Your task to perform on an android device: Search for sushi restaurants on Maps Image 0: 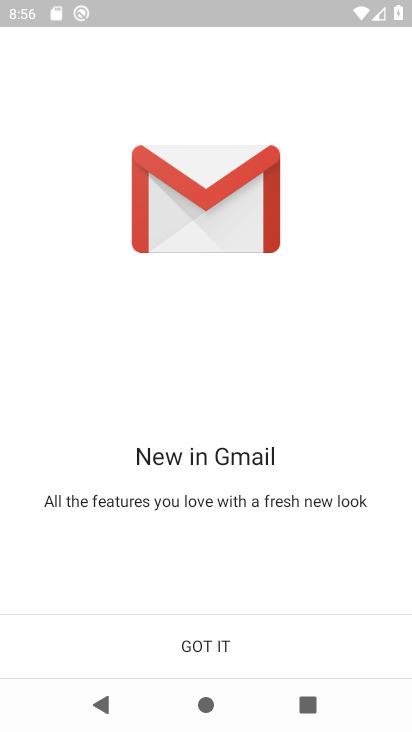
Step 0: press home button
Your task to perform on an android device: Search for sushi restaurants on Maps Image 1: 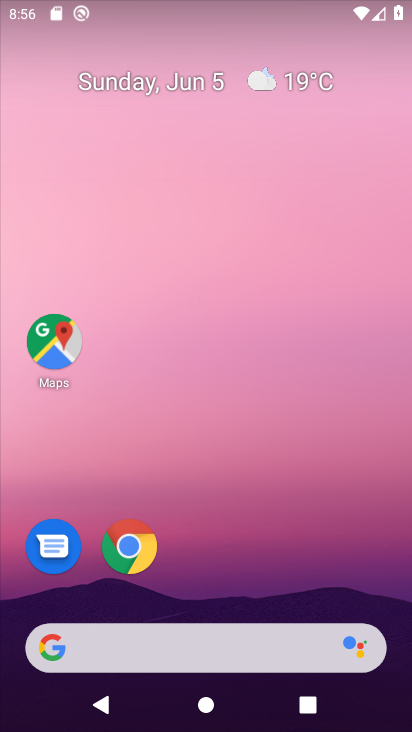
Step 1: drag from (241, 534) to (341, 57)
Your task to perform on an android device: Search for sushi restaurants on Maps Image 2: 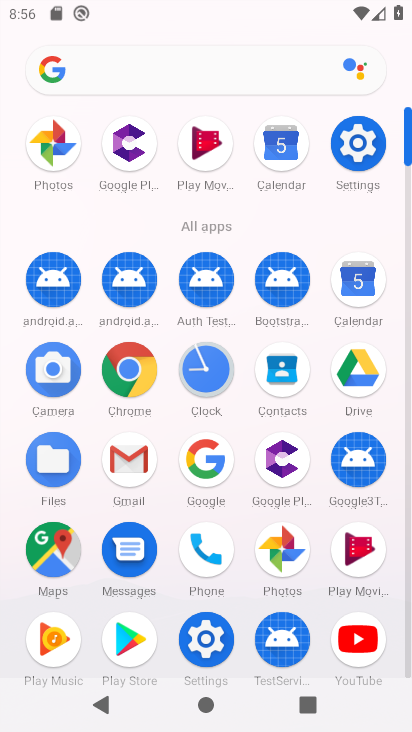
Step 2: drag from (232, 725) to (365, 534)
Your task to perform on an android device: Search for sushi restaurants on Maps Image 3: 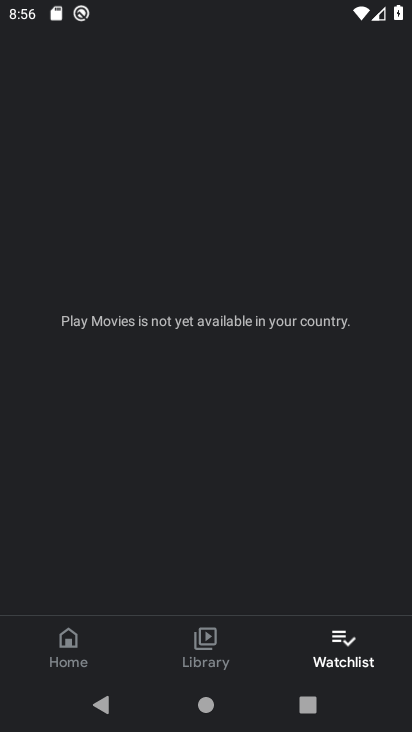
Step 3: press home button
Your task to perform on an android device: Search for sushi restaurants on Maps Image 4: 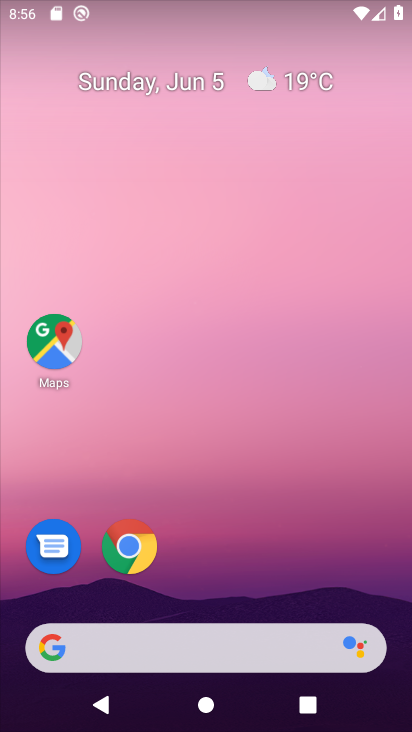
Step 4: drag from (250, 603) to (296, 110)
Your task to perform on an android device: Search for sushi restaurants on Maps Image 5: 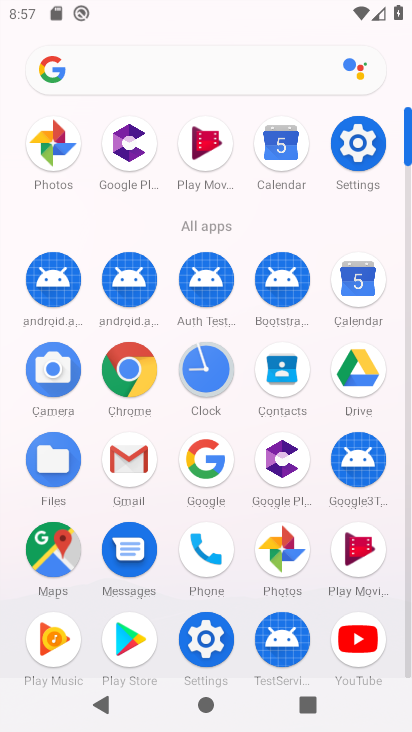
Step 5: click (54, 574)
Your task to perform on an android device: Search for sushi restaurants on Maps Image 6: 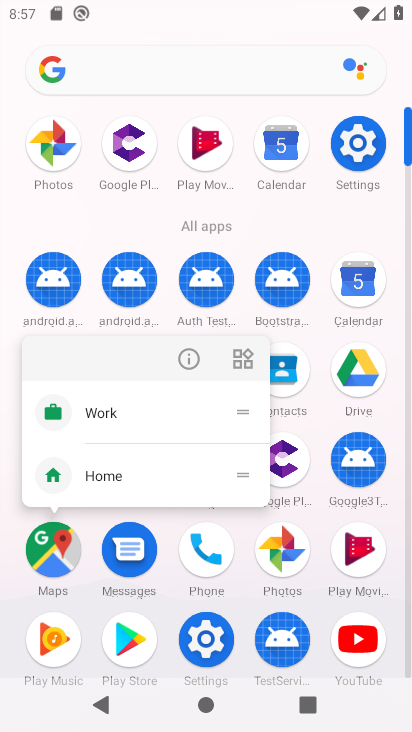
Step 6: click (54, 574)
Your task to perform on an android device: Search for sushi restaurants on Maps Image 7: 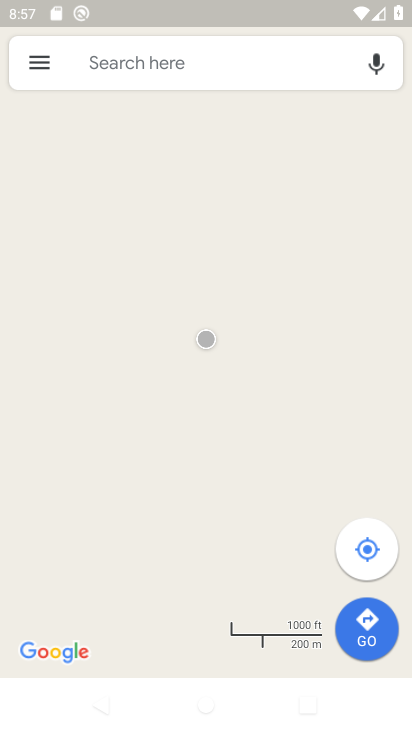
Step 7: click (172, 58)
Your task to perform on an android device: Search for sushi restaurants on Maps Image 8: 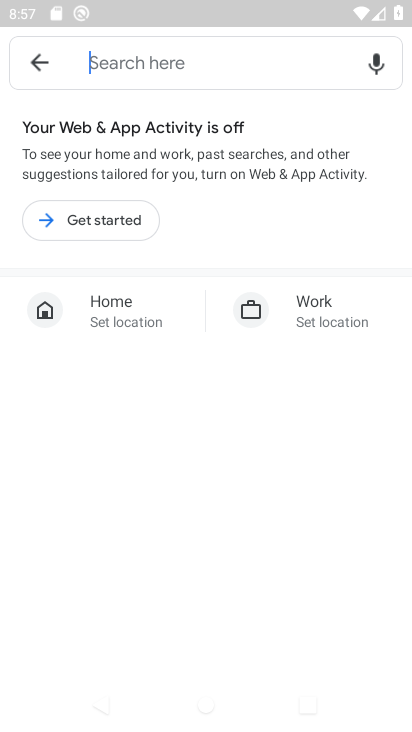
Step 8: click (172, 58)
Your task to perform on an android device: Search for sushi restaurants on Maps Image 9: 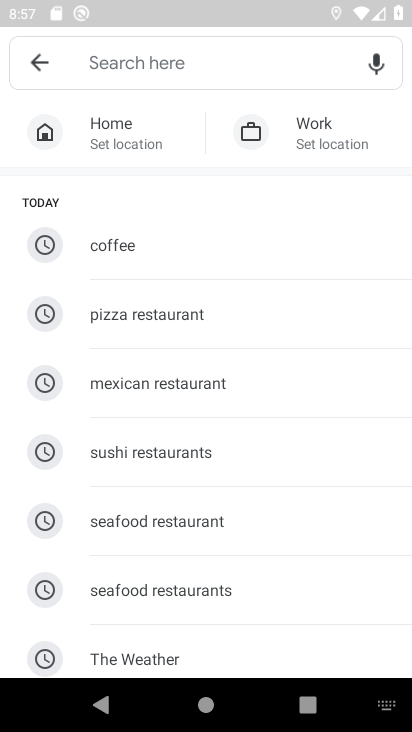
Step 9: type " sushi restaurants "
Your task to perform on an android device: Search for sushi restaurants on Maps Image 10: 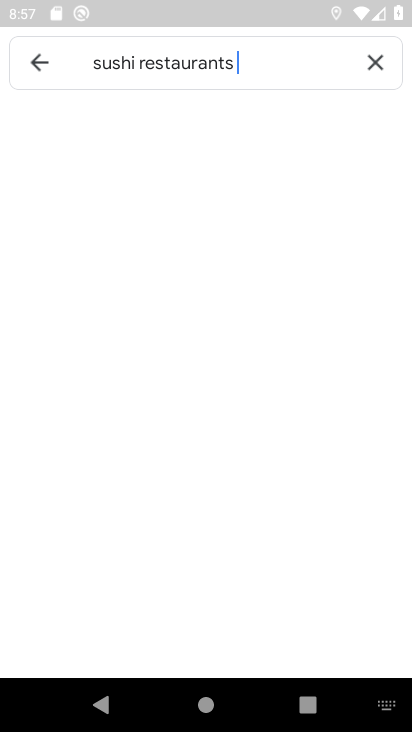
Step 10: type ""
Your task to perform on an android device: Search for sushi restaurants on Maps Image 11: 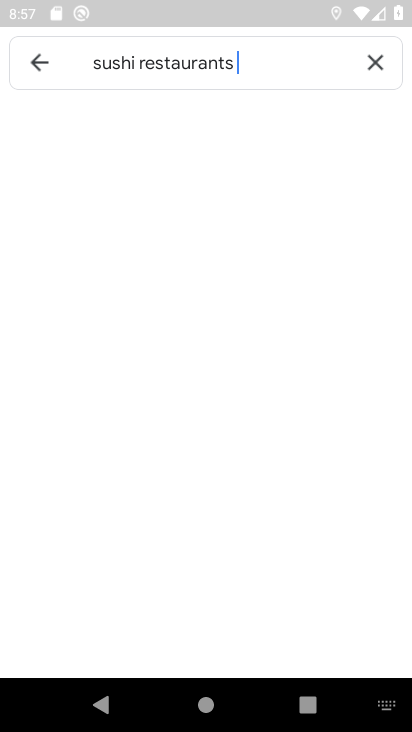
Step 11: click (184, 99)
Your task to perform on an android device: Search for sushi restaurants on Maps Image 12: 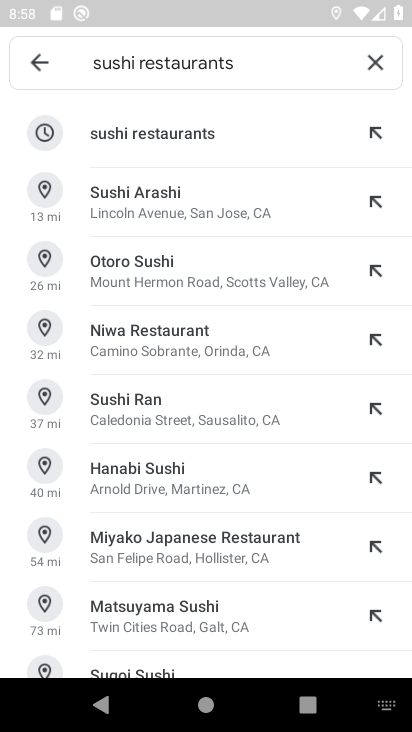
Step 12: click (184, 135)
Your task to perform on an android device: Search for sushi restaurants on Maps Image 13: 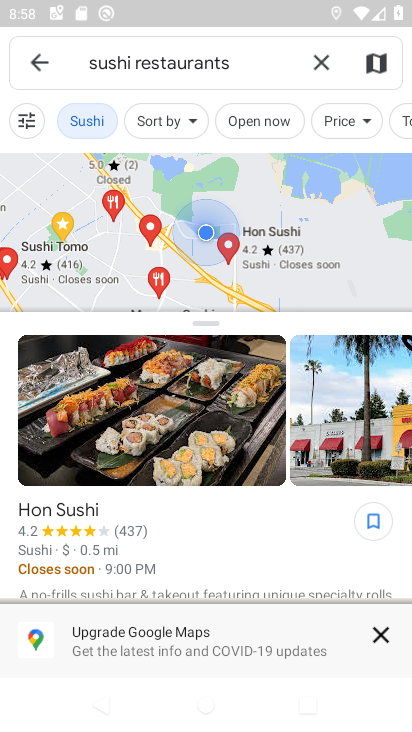
Step 13: task complete